Your task to perform on an android device: change the clock style Image 0: 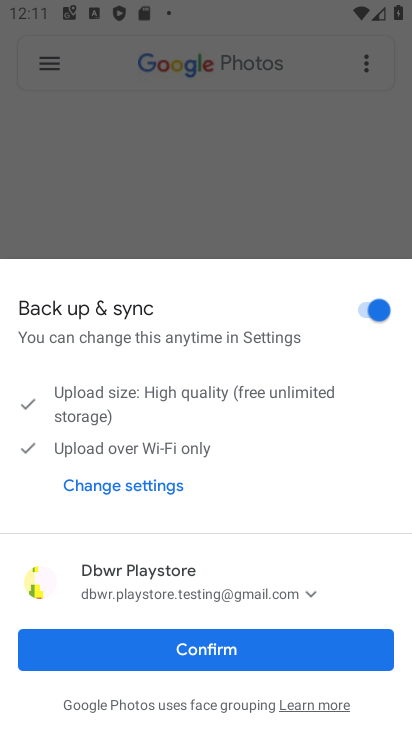
Step 0: press home button
Your task to perform on an android device: change the clock style Image 1: 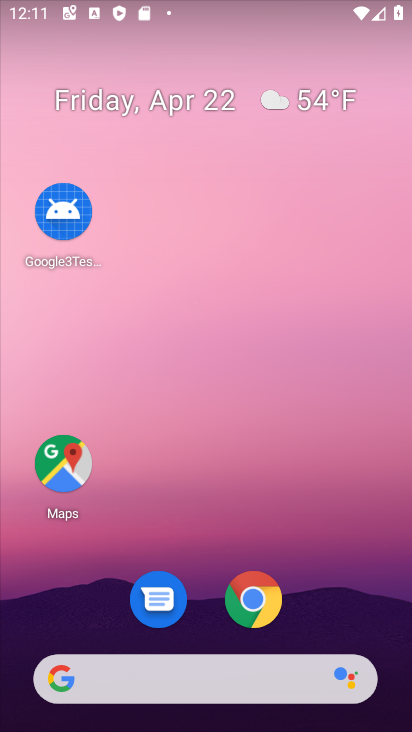
Step 1: drag from (255, 448) to (248, 25)
Your task to perform on an android device: change the clock style Image 2: 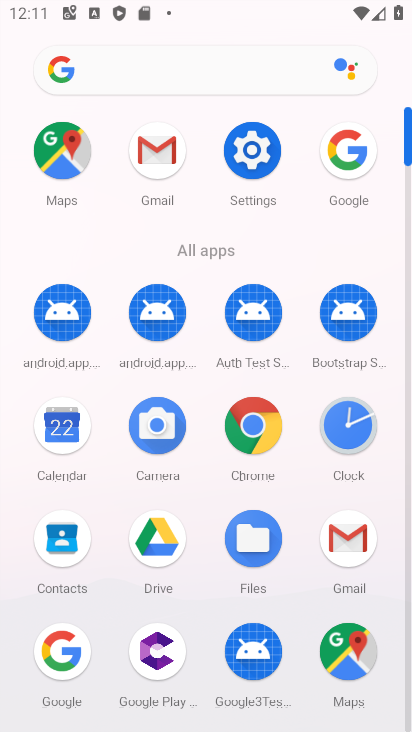
Step 2: click (351, 430)
Your task to perform on an android device: change the clock style Image 3: 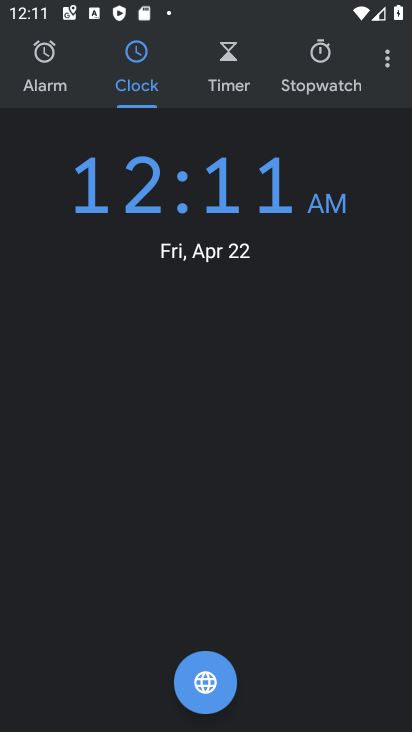
Step 3: click (382, 58)
Your task to perform on an android device: change the clock style Image 4: 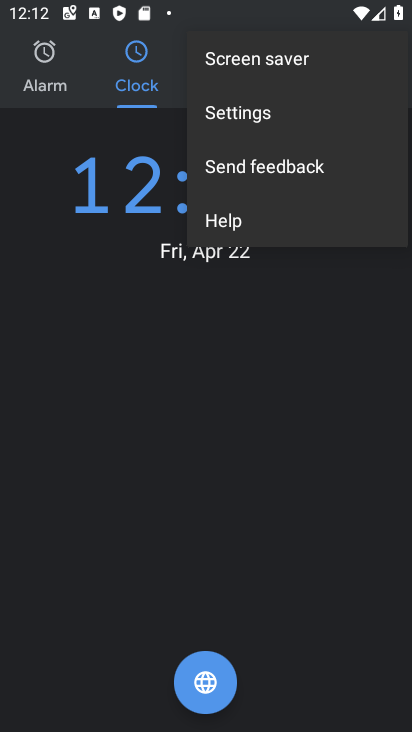
Step 4: click (236, 107)
Your task to perform on an android device: change the clock style Image 5: 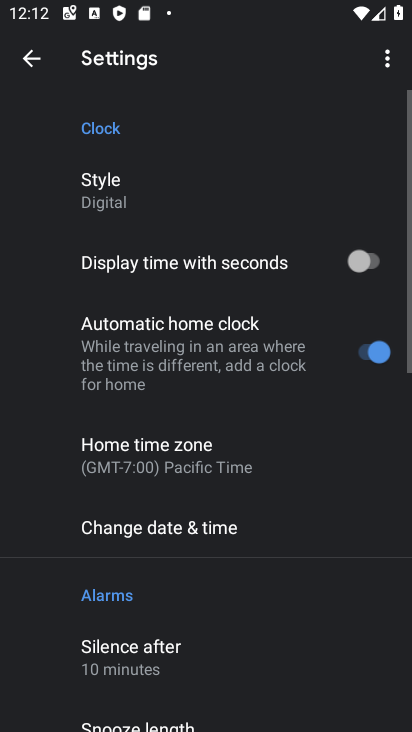
Step 5: click (184, 188)
Your task to perform on an android device: change the clock style Image 6: 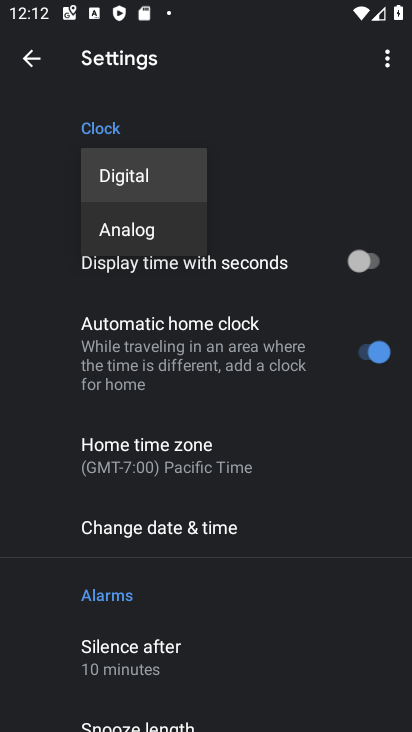
Step 6: click (179, 227)
Your task to perform on an android device: change the clock style Image 7: 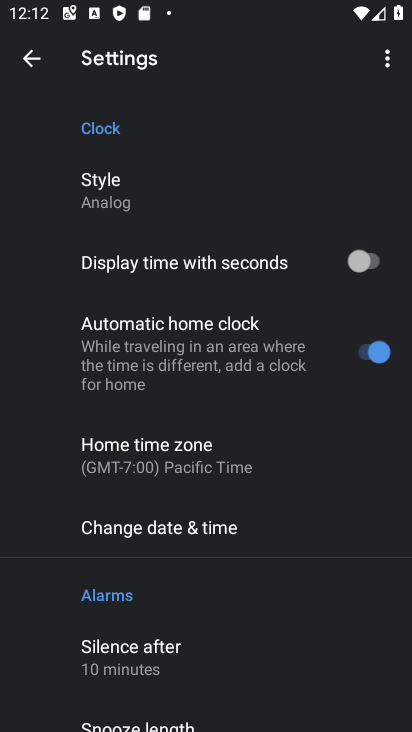
Step 7: task complete